Your task to perform on an android device: turn on improve location accuracy Image 0: 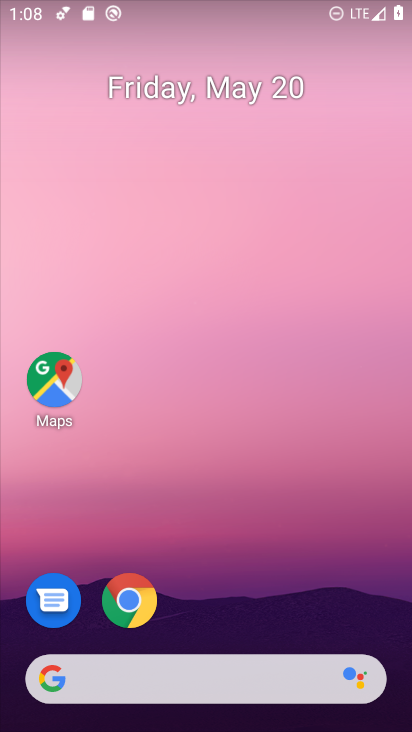
Step 0: drag from (213, 679) to (181, 127)
Your task to perform on an android device: turn on improve location accuracy Image 1: 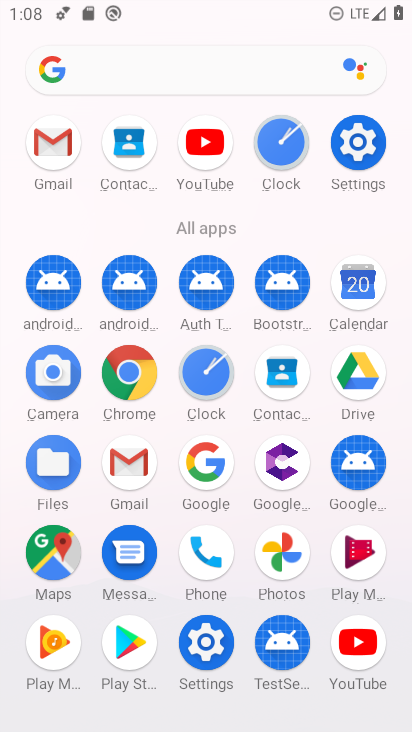
Step 1: click (369, 125)
Your task to perform on an android device: turn on improve location accuracy Image 2: 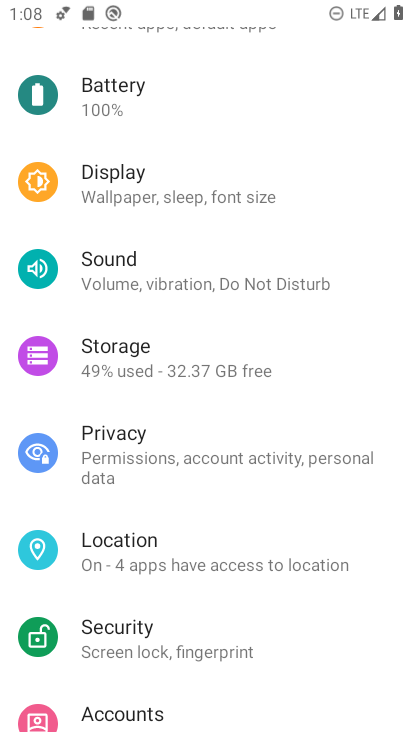
Step 2: click (145, 571)
Your task to perform on an android device: turn on improve location accuracy Image 3: 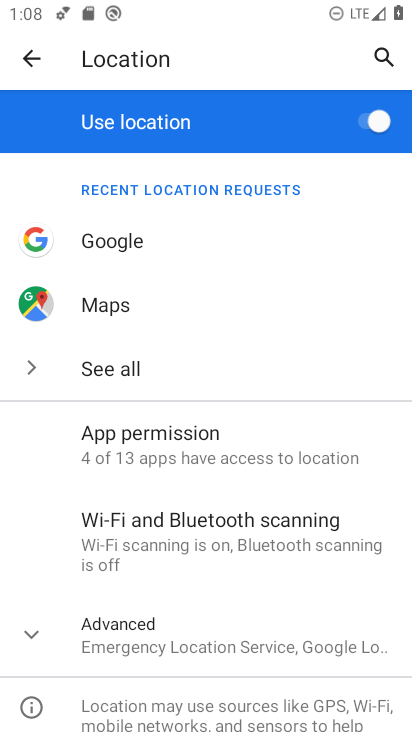
Step 3: click (153, 657)
Your task to perform on an android device: turn on improve location accuracy Image 4: 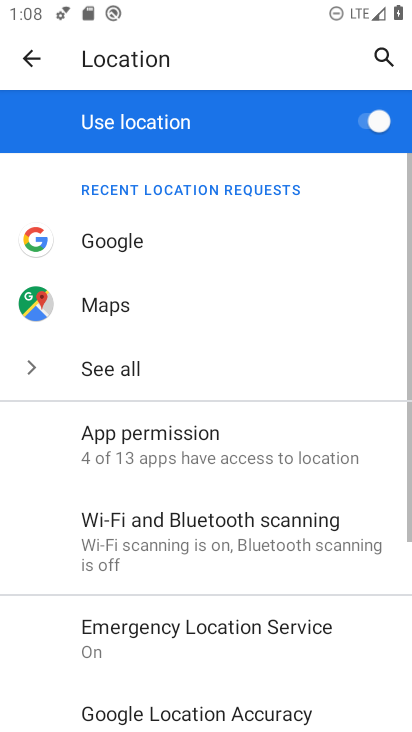
Step 4: drag from (153, 657) to (180, 165)
Your task to perform on an android device: turn on improve location accuracy Image 5: 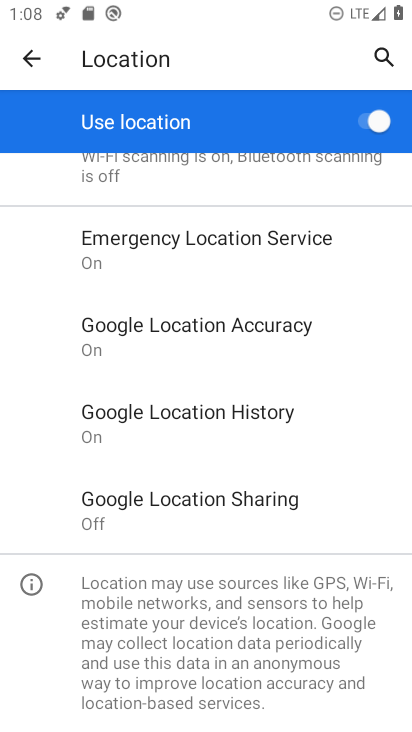
Step 5: click (200, 333)
Your task to perform on an android device: turn on improve location accuracy Image 6: 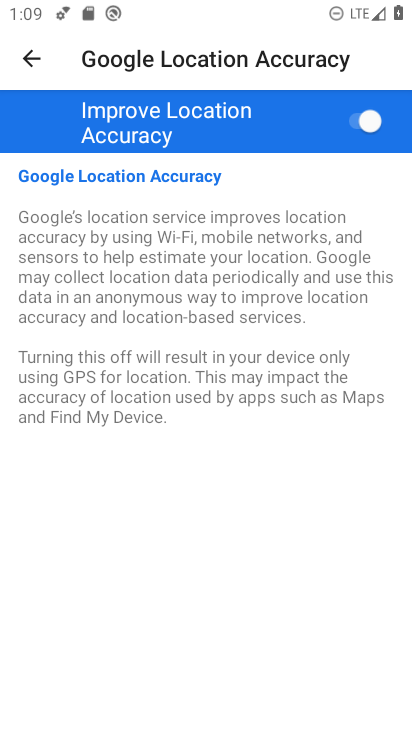
Step 6: task complete